Your task to perform on an android device: Open the calendar and show me this week's events Image 0: 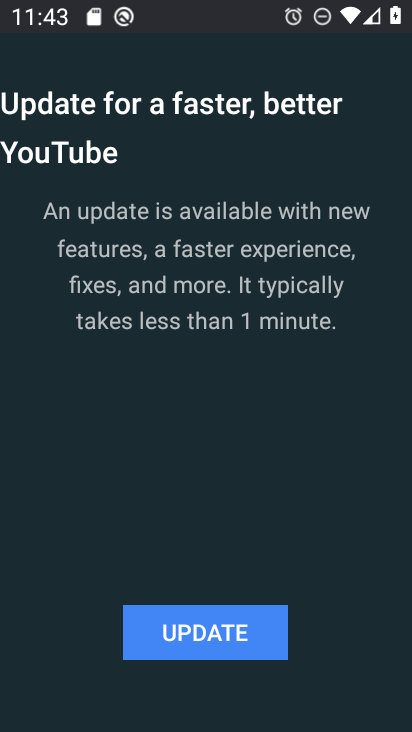
Step 0: press back button
Your task to perform on an android device: Open the calendar and show me this week's events Image 1: 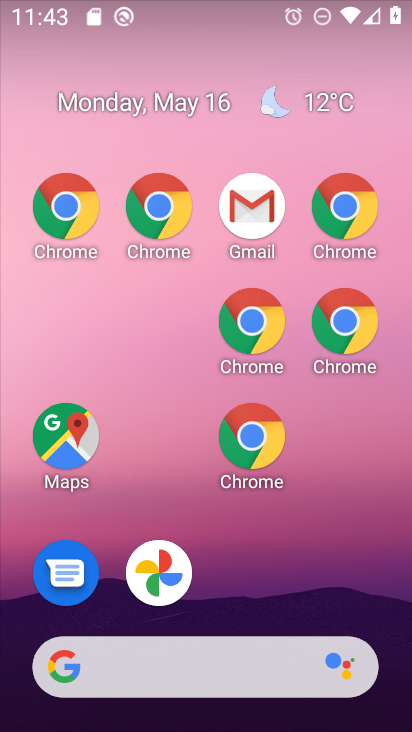
Step 1: drag from (407, 675) to (177, 162)
Your task to perform on an android device: Open the calendar and show me this week's events Image 2: 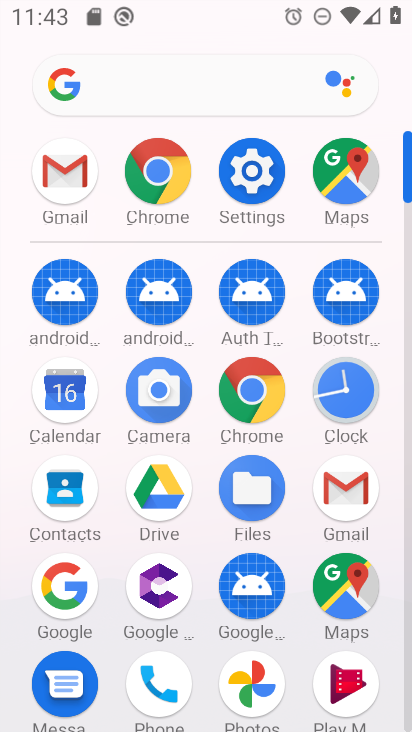
Step 2: click (77, 391)
Your task to perform on an android device: Open the calendar and show me this week's events Image 3: 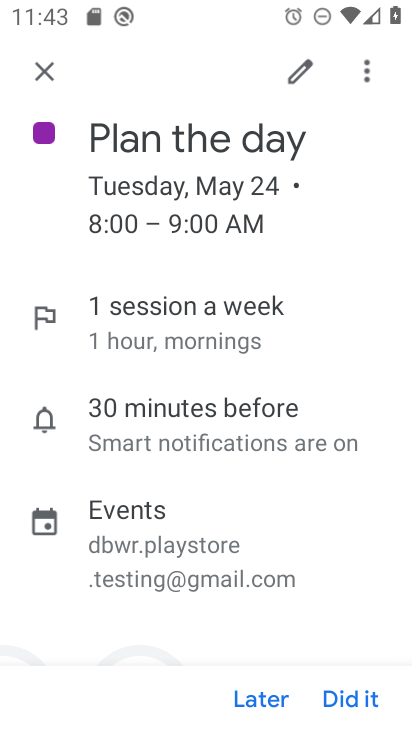
Step 3: task complete